Your task to perform on an android device: set the stopwatch Image 0: 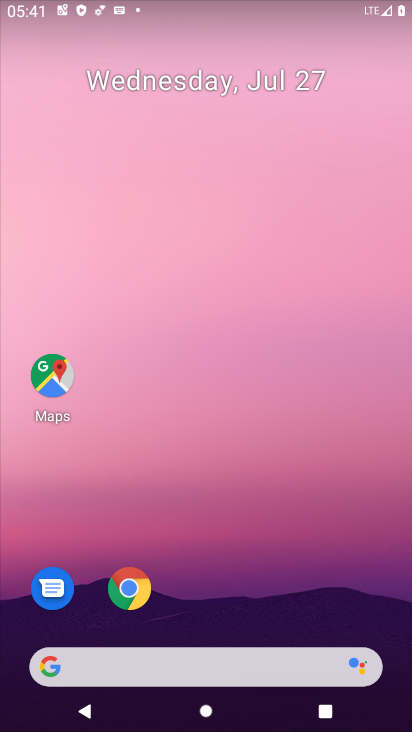
Step 0: drag from (221, 581) to (236, 2)
Your task to perform on an android device: set the stopwatch Image 1: 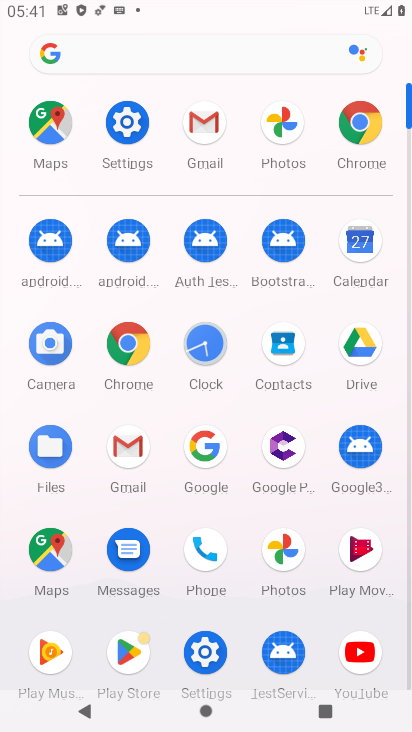
Step 1: click (222, 341)
Your task to perform on an android device: set the stopwatch Image 2: 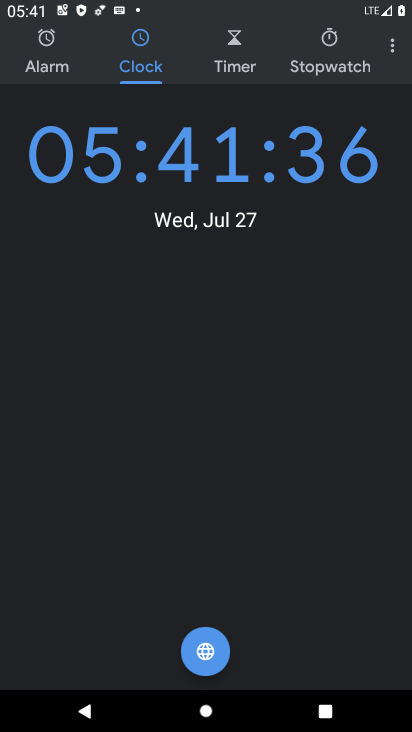
Step 2: click (324, 41)
Your task to perform on an android device: set the stopwatch Image 3: 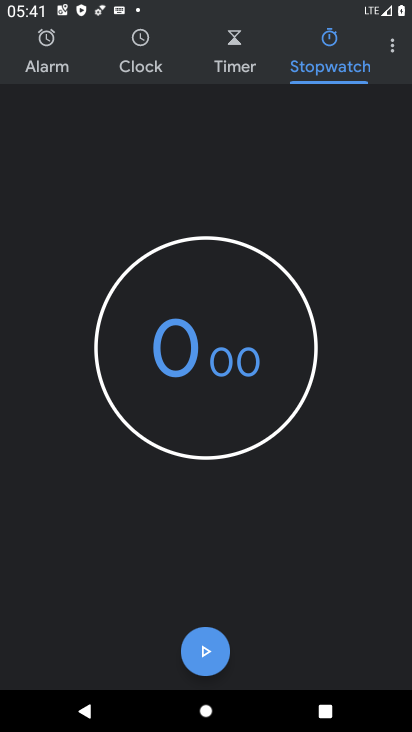
Step 3: click (209, 651)
Your task to perform on an android device: set the stopwatch Image 4: 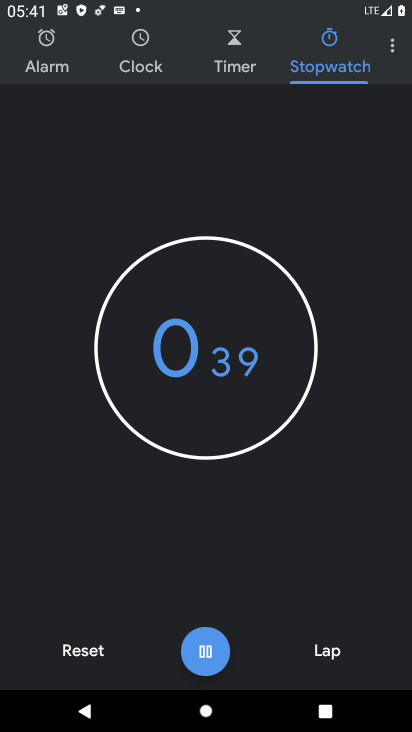
Step 4: task complete